Your task to perform on an android device: turn off notifications in google photos Image 0: 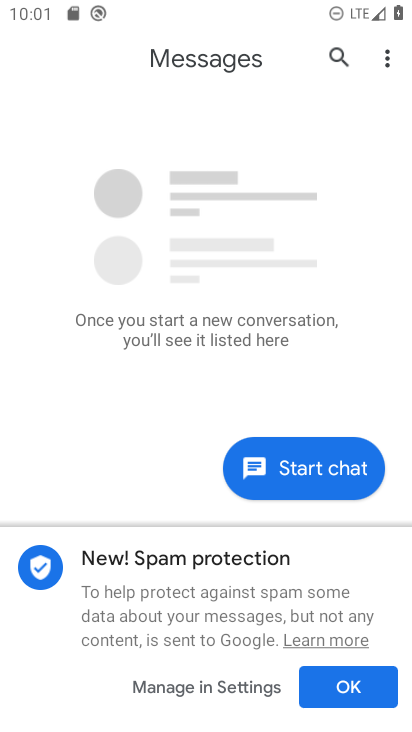
Step 0: press home button
Your task to perform on an android device: turn off notifications in google photos Image 1: 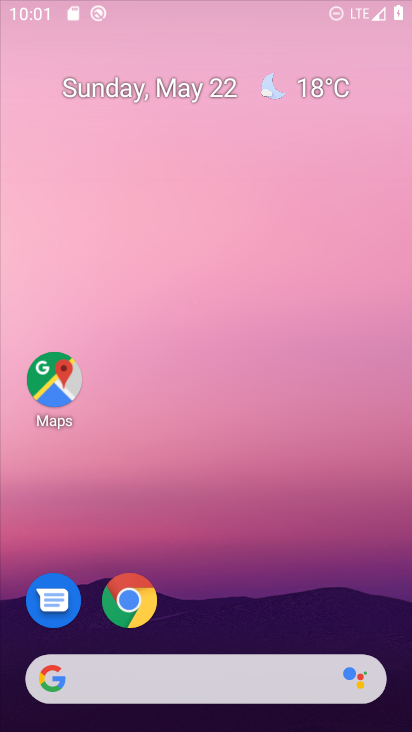
Step 1: drag from (395, 620) to (319, 6)
Your task to perform on an android device: turn off notifications in google photos Image 2: 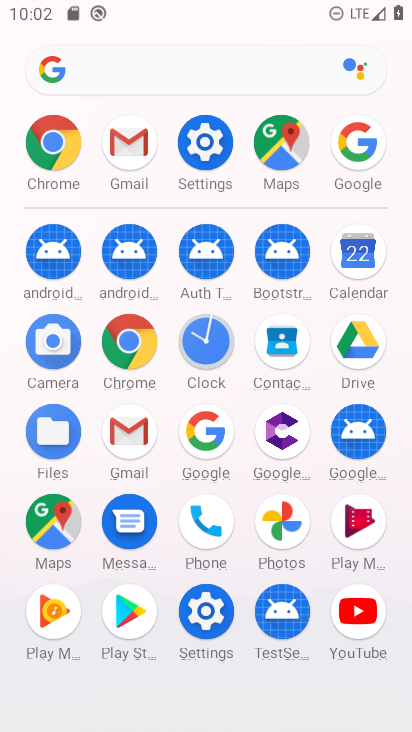
Step 2: click (287, 536)
Your task to perform on an android device: turn off notifications in google photos Image 3: 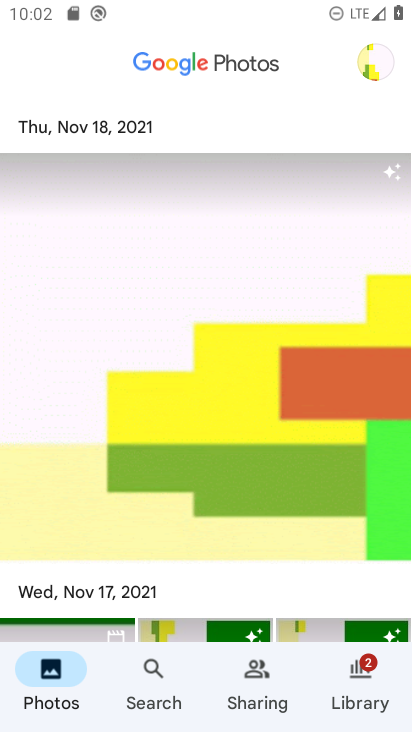
Step 3: press back button
Your task to perform on an android device: turn off notifications in google photos Image 4: 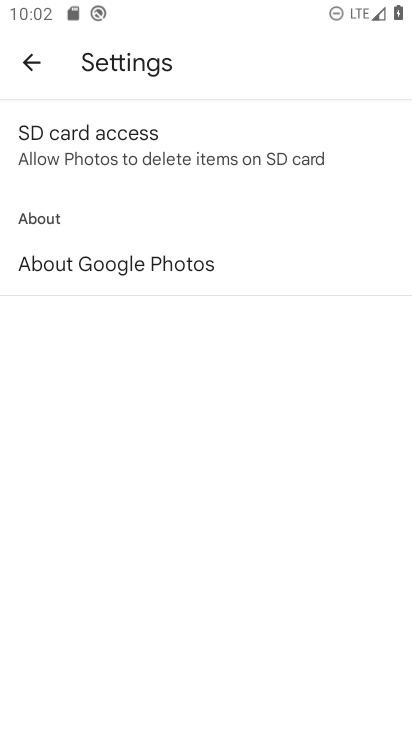
Step 4: press back button
Your task to perform on an android device: turn off notifications in google photos Image 5: 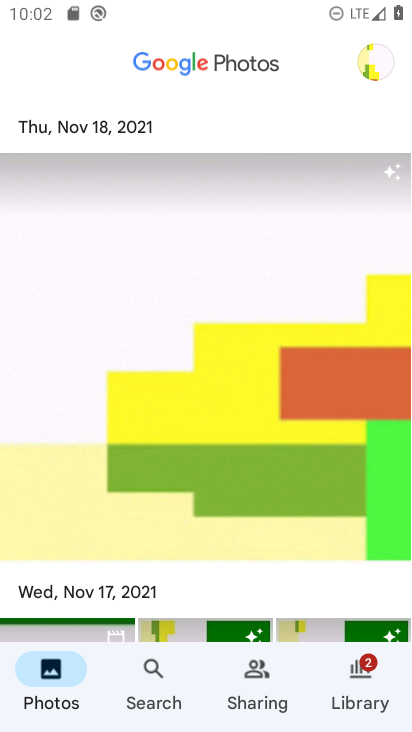
Step 5: press back button
Your task to perform on an android device: turn off notifications in google photos Image 6: 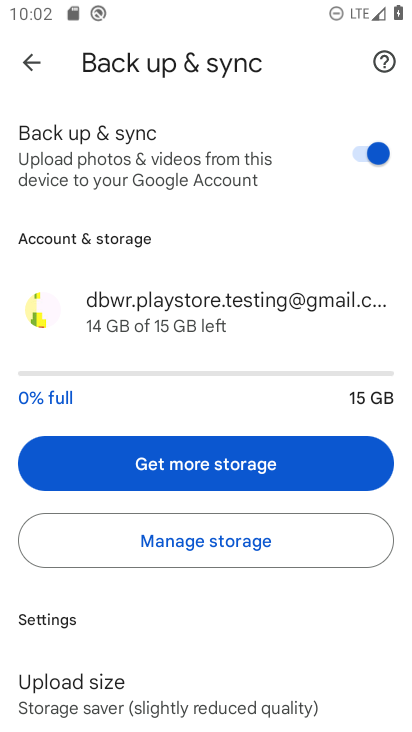
Step 6: drag from (79, 659) to (195, 83)
Your task to perform on an android device: turn off notifications in google photos Image 7: 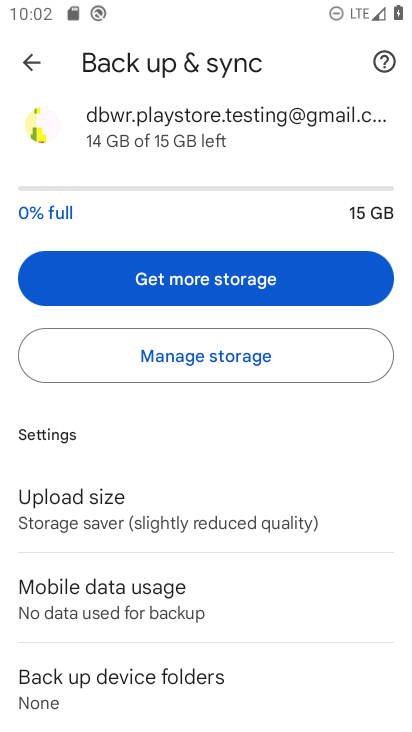
Step 7: press back button
Your task to perform on an android device: turn off notifications in google photos Image 8: 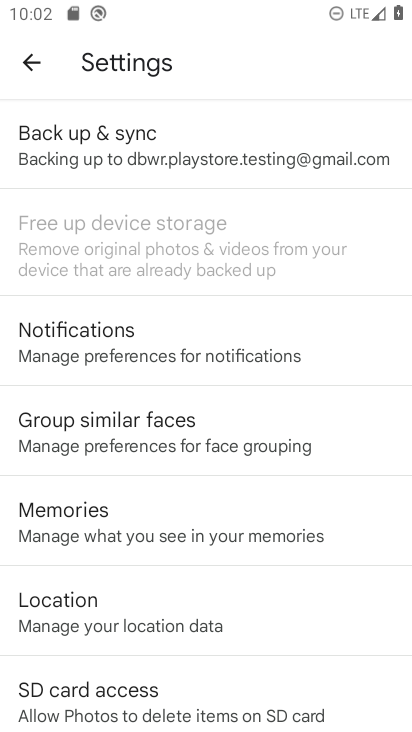
Step 8: click (159, 342)
Your task to perform on an android device: turn off notifications in google photos Image 9: 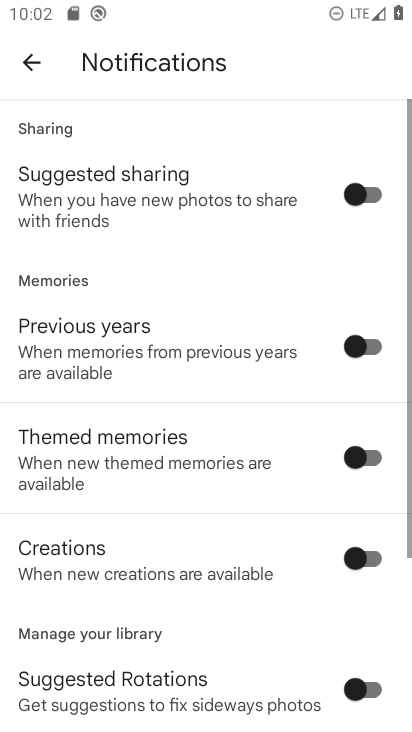
Step 9: task complete